Your task to perform on an android device: Open Google Maps and go to "Timeline" Image 0: 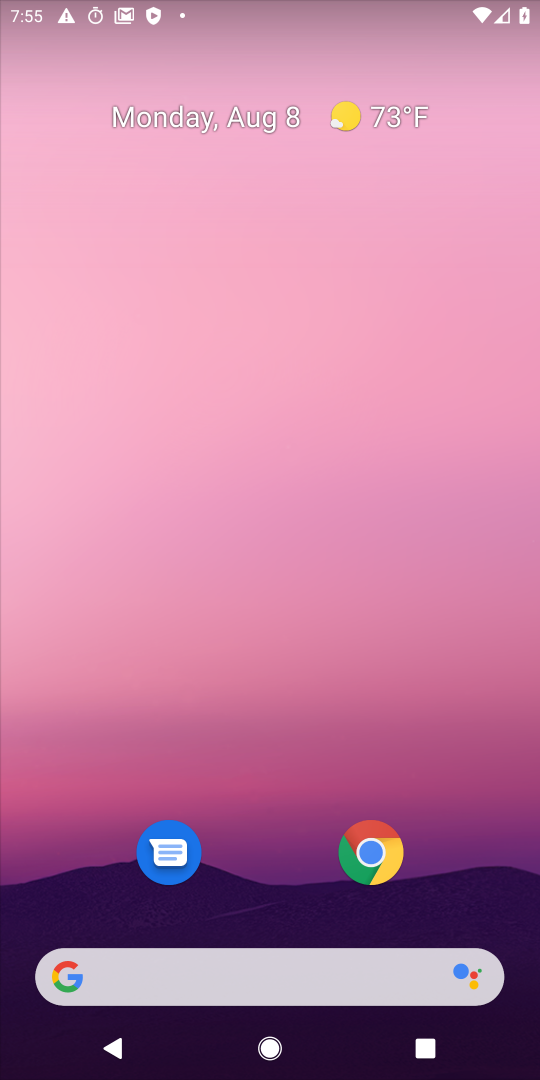
Step 0: drag from (138, 525) to (292, 214)
Your task to perform on an android device: Open Google Maps and go to "Timeline" Image 1: 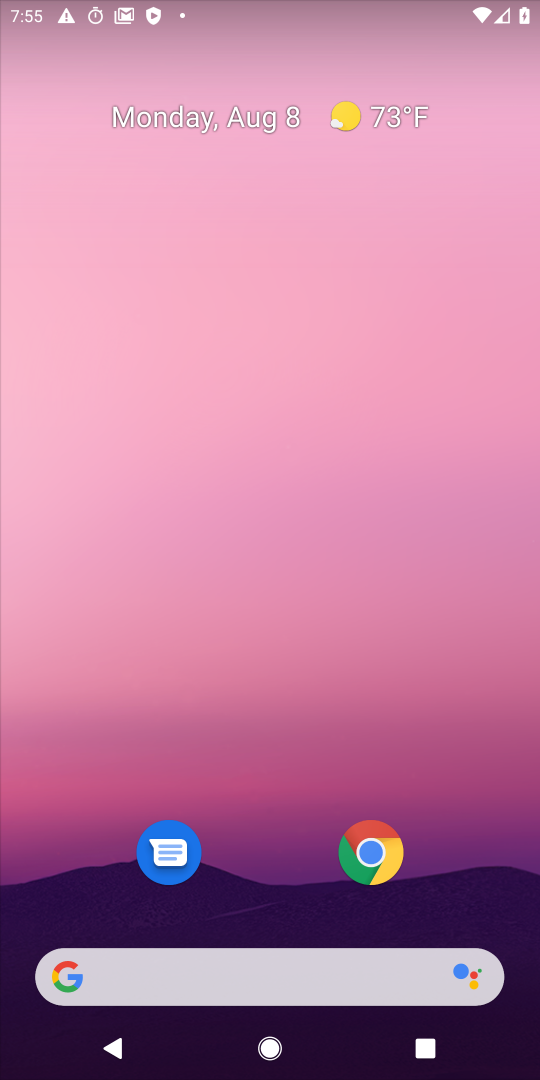
Step 1: drag from (185, 492) to (359, 43)
Your task to perform on an android device: Open Google Maps and go to "Timeline" Image 2: 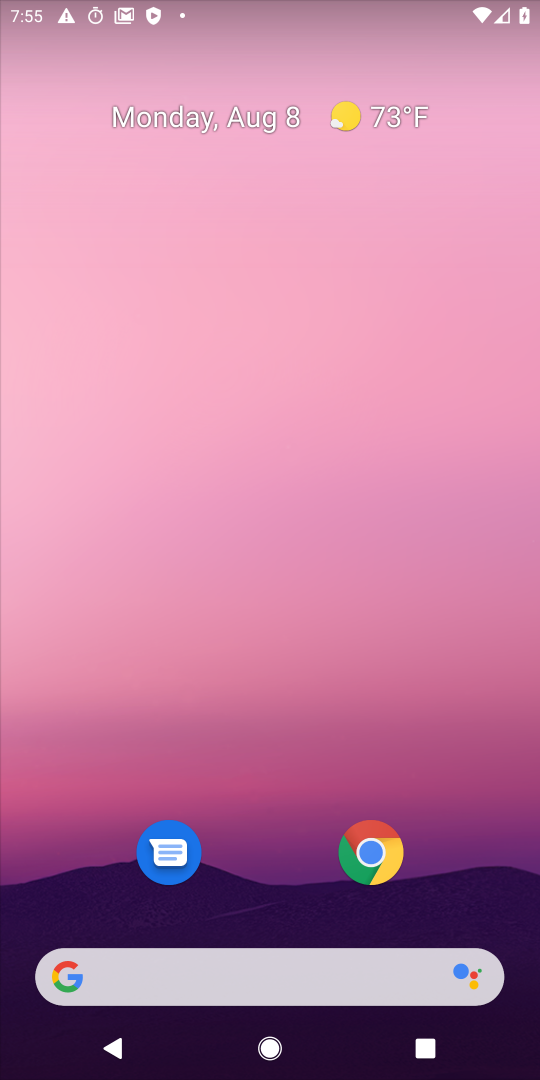
Step 2: drag from (14, 946) to (344, 183)
Your task to perform on an android device: Open Google Maps and go to "Timeline" Image 3: 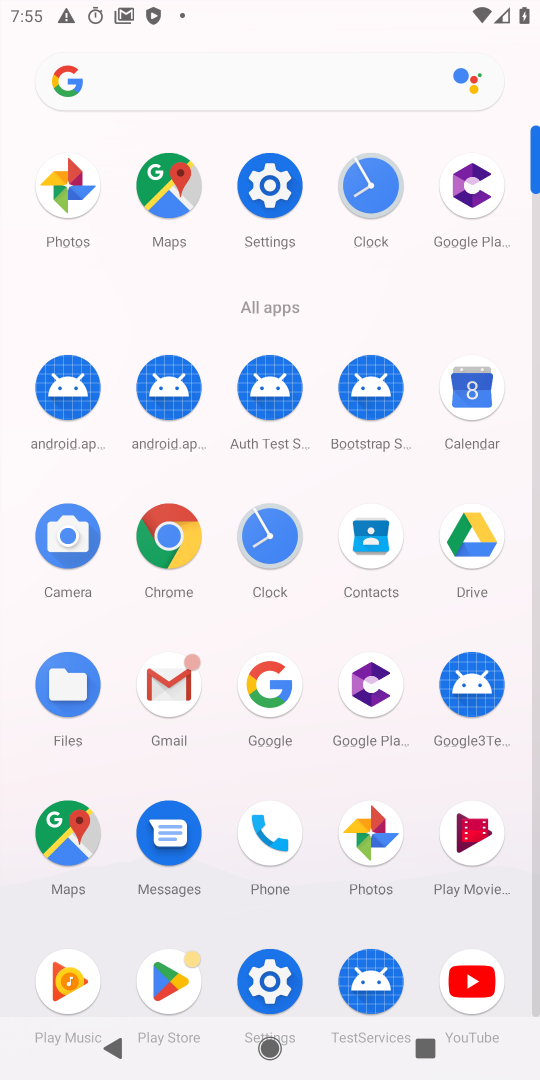
Step 3: click (46, 834)
Your task to perform on an android device: Open Google Maps and go to "Timeline" Image 4: 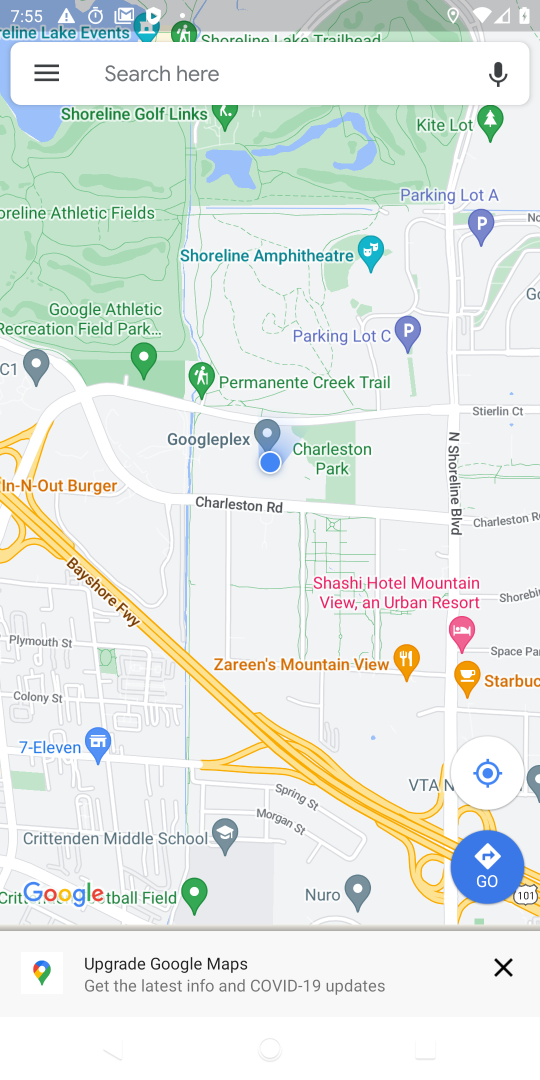
Step 4: click (47, 76)
Your task to perform on an android device: Open Google Maps and go to "Timeline" Image 5: 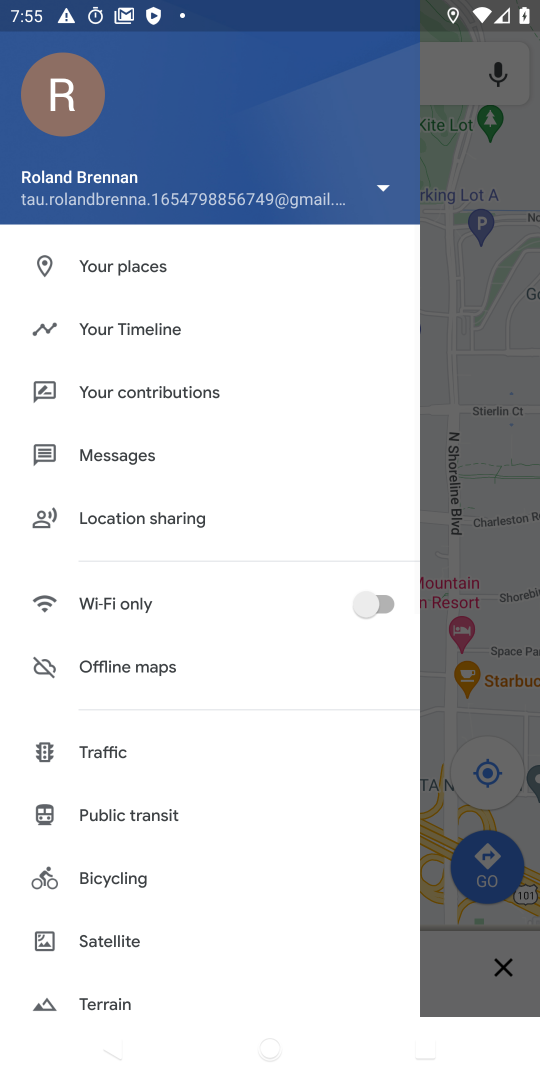
Step 5: click (168, 325)
Your task to perform on an android device: Open Google Maps and go to "Timeline" Image 6: 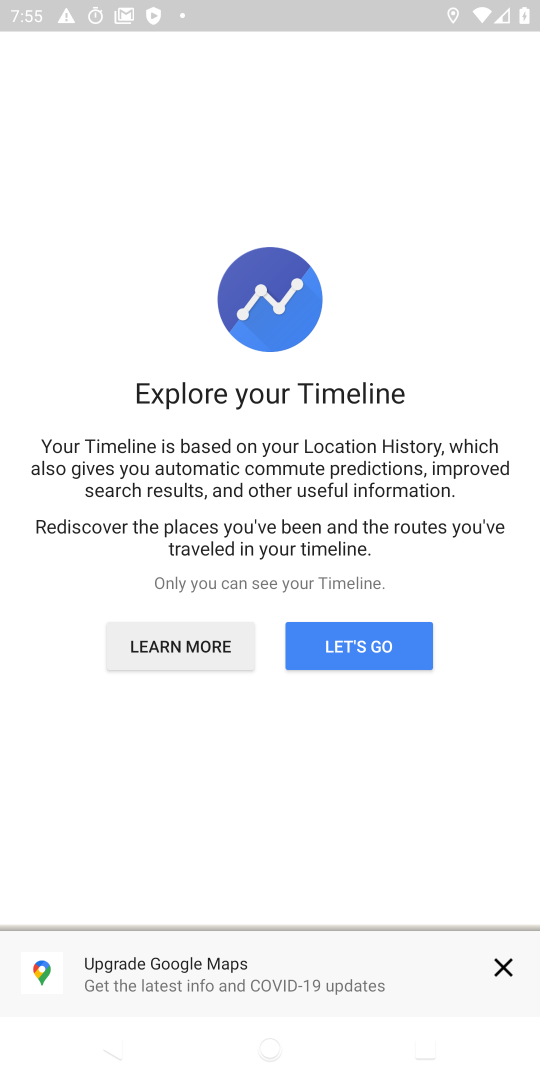
Step 6: click (510, 967)
Your task to perform on an android device: Open Google Maps and go to "Timeline" Image 7: 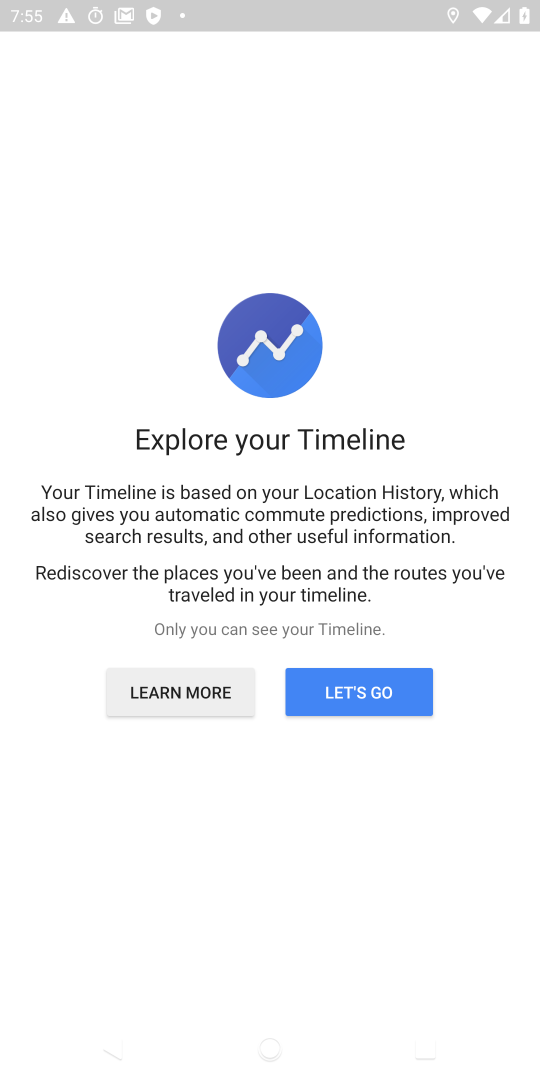
Step 7: task complete